Your task to perform on an android device: Open Maps and search for coffee Image 0: 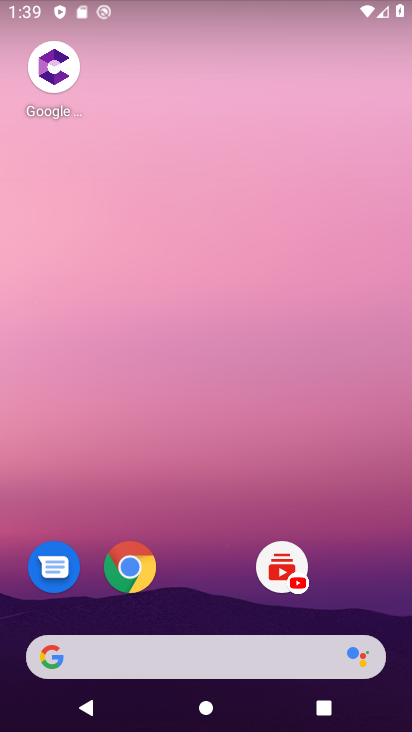
Step 0: drag from (213, 498) to (217, 109)
Your task to perform on an android device: Open Maps and search for coffee Image 1: 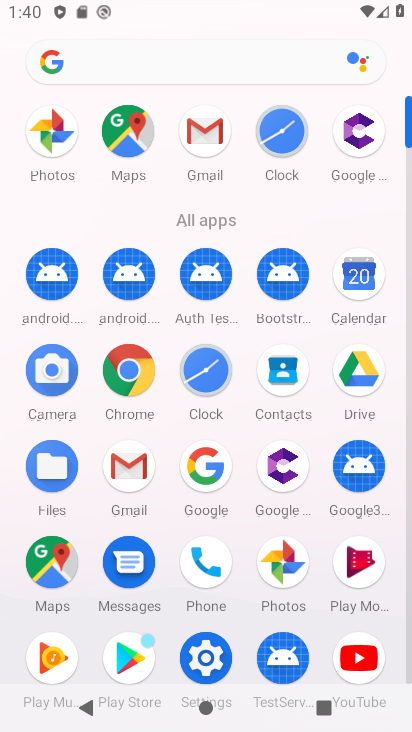
Step 1: click (48, 574)
Your task to perform on an android device: Open Maps and search for coffee Image 2: 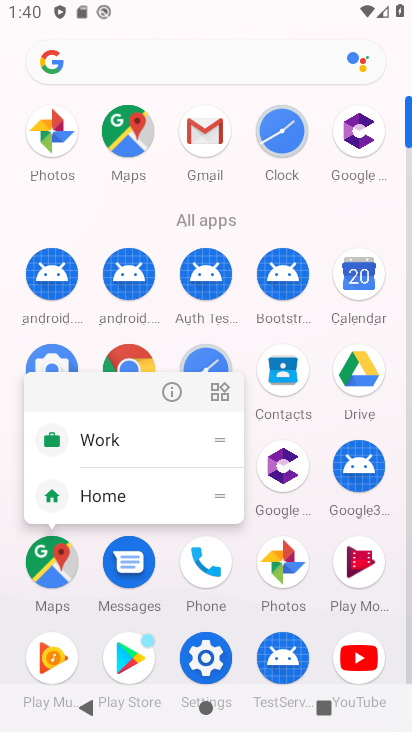
Step 2: click (179, 395)
Your task to perform on an android device: Open Maps and search for coffee Image 3: 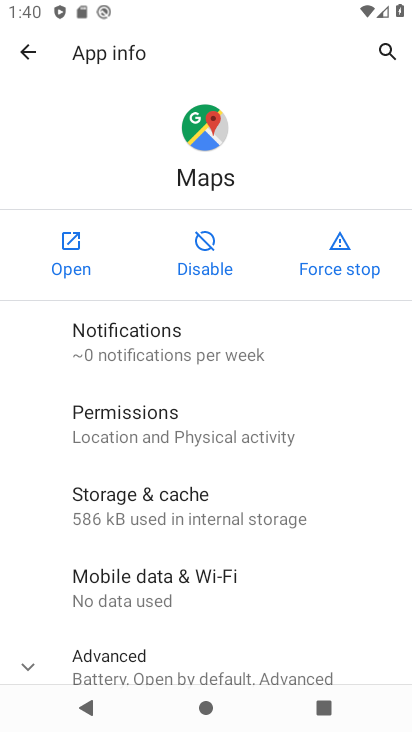
Step 3: click (59, 250)
Your task to perform on an android device: Open Maps and search for coffee Image 4: 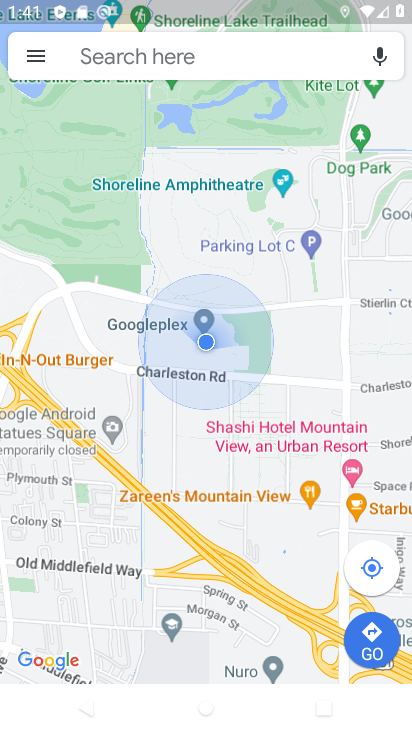
Step 4: drag from (212, 378) to (208, 229)
Your task to perform on an android device: Open Maps and search for coffee Image 5: 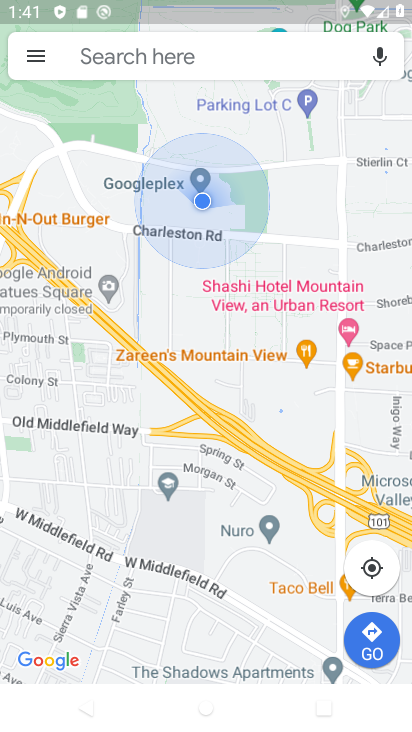
Step 5: click (125, 57)
Your task to perform on an android device: Open Maps and search for coffee Image 6: 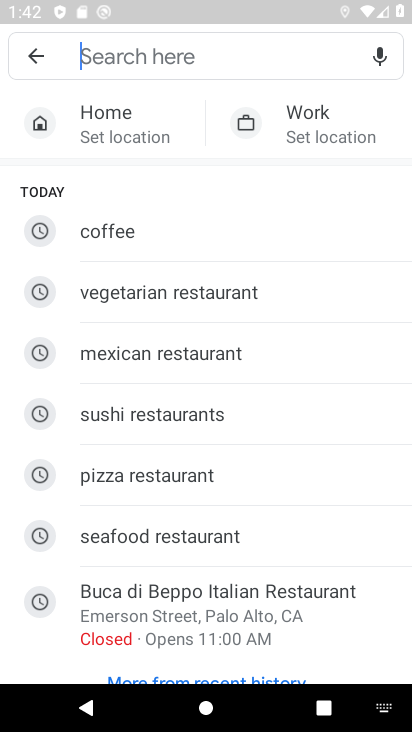
Step 6: click (147, 224)
Your task to perform on an android device: Open Maps and search for coffee Image 7: 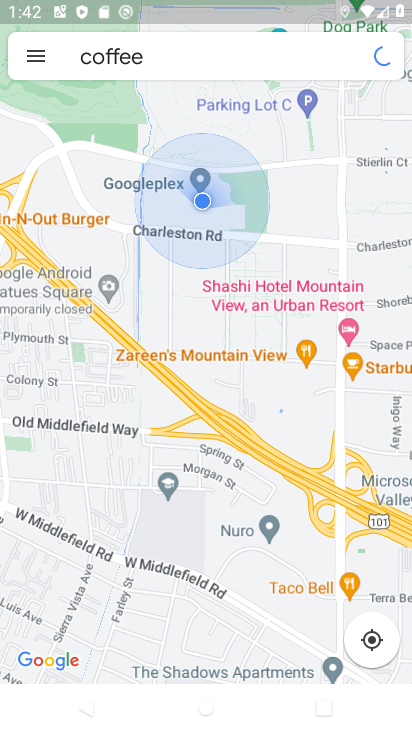
Step 7: task complete